Your task to perform on an android device: check storage Image 0: 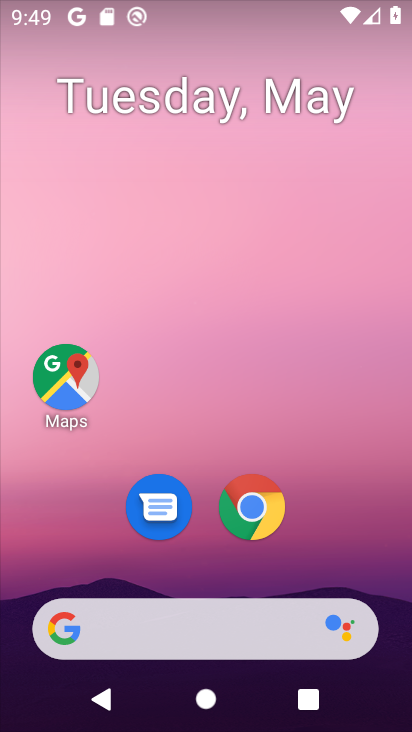
Step 0: drag from (325, 548) to (288, 2)
Your task to perform on an android device: check storage Image 1: 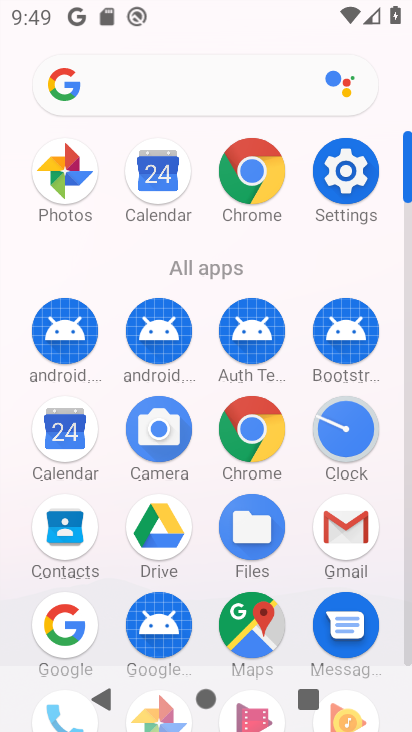
Step 1: click (350, 180)
Your task to perform on an android device: check storage Image 2: 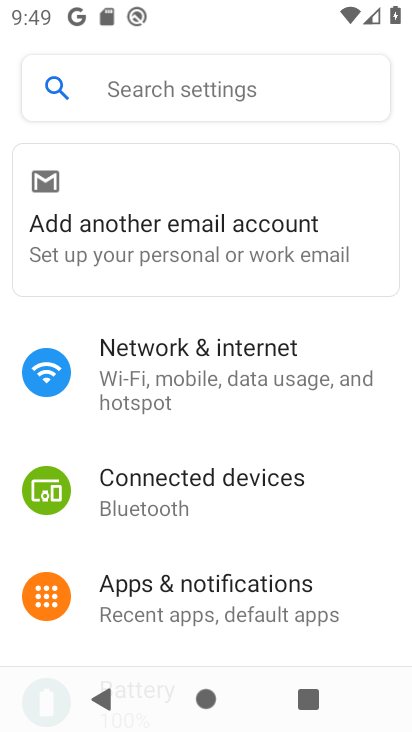
Step 2: drag from (238, 613) to (240, 174)
Your task to perform on an android device: check storage Image 3: 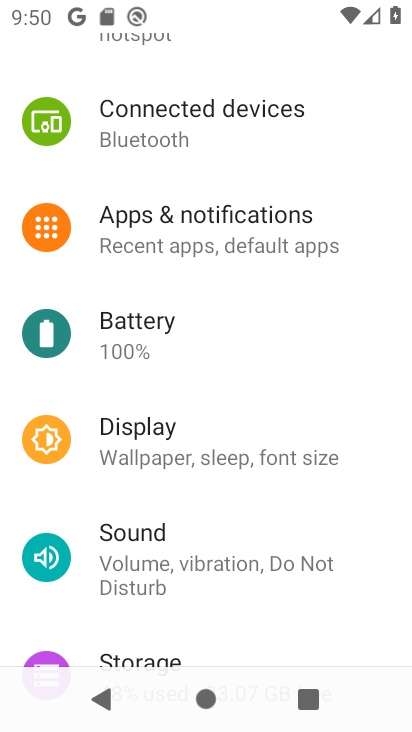
Step 3: drag from (231, 602) to (243, 284)
Your task to perform on an android device: check storage Image 4: 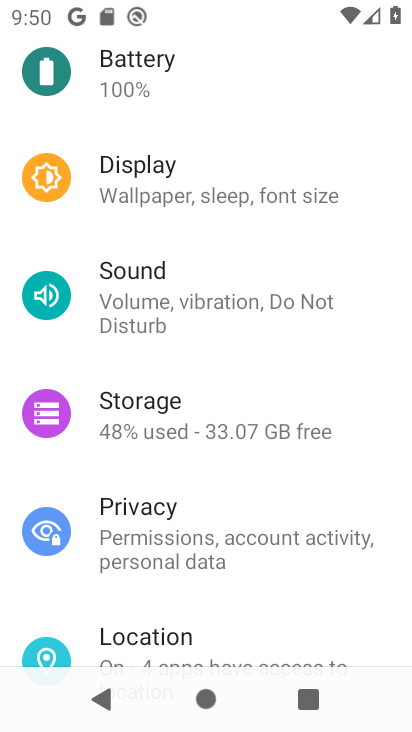
Step 4: click (203, 434)
Your task to perform on an android device: check storage Image 5: 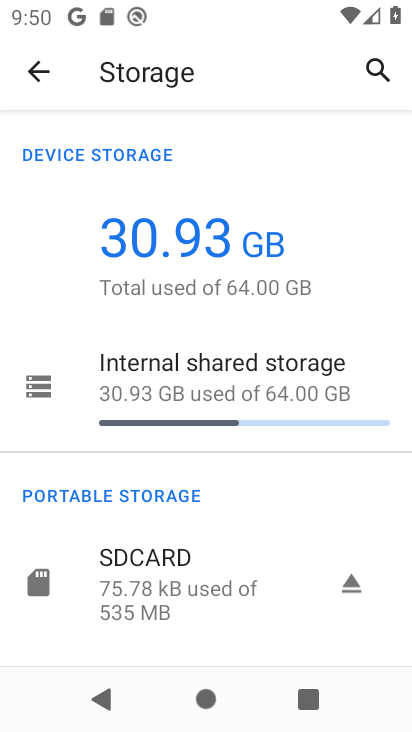
Step 5: task complete